Your task to perform on an android device: What's the weather today? Image 0: 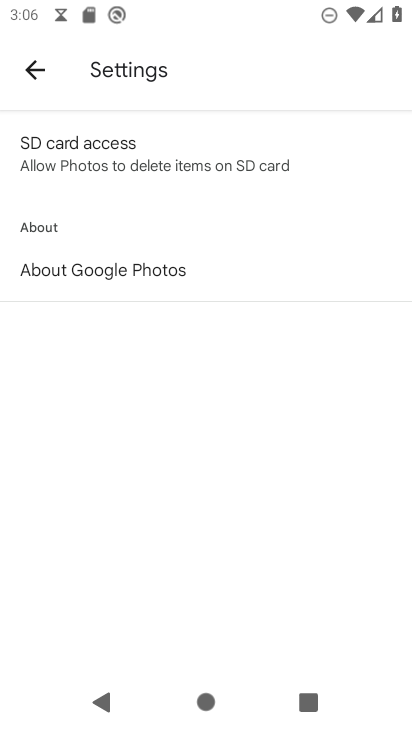
Step 0: press home button
Your task to perform on an android device: What's the weather today? Image 1: 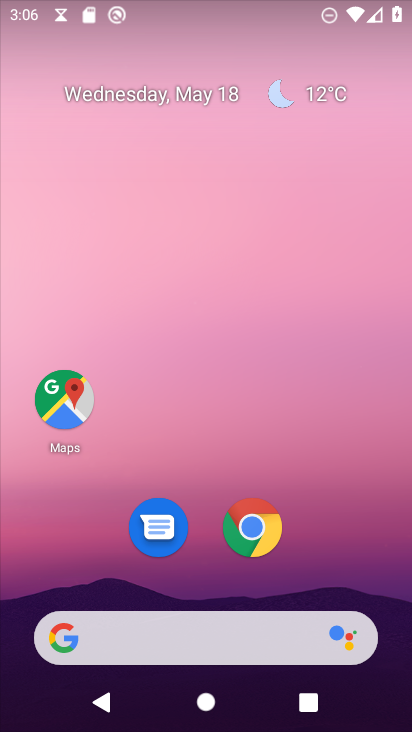
Step 1: click (313, 88)
Your task to perform on an android device: What's the weather today? Image 2: 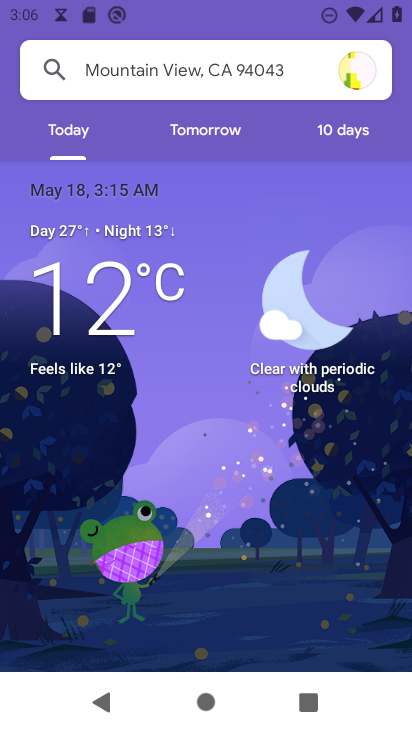
Step 2: task complete